Your task to perform on an android device: manage bookmarks in the chrome app Image 0: 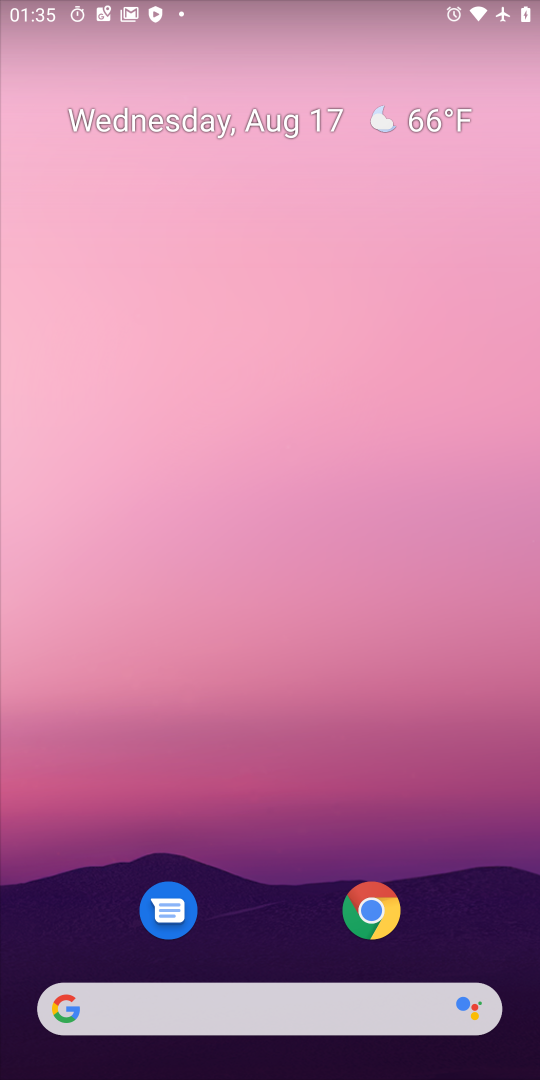
Step 0: drag from (444, 825) to (326, 167)
Your task to perform on an android device: manage bookmarks in the chrome app Image 1: 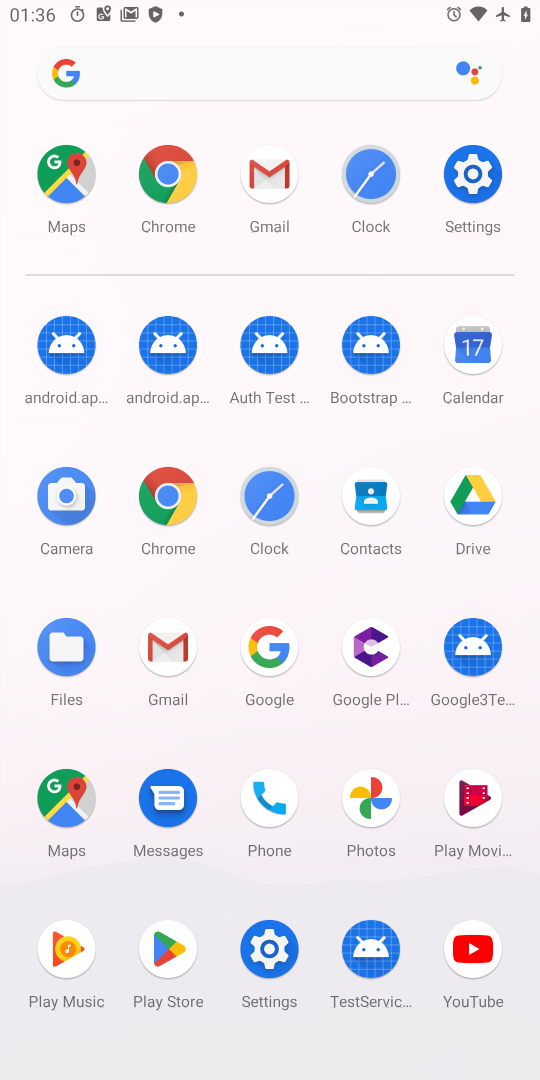
Step 1: click (169, 485)
Your task to perform on an android device: manage bookmarks in the chrome app Image 2: 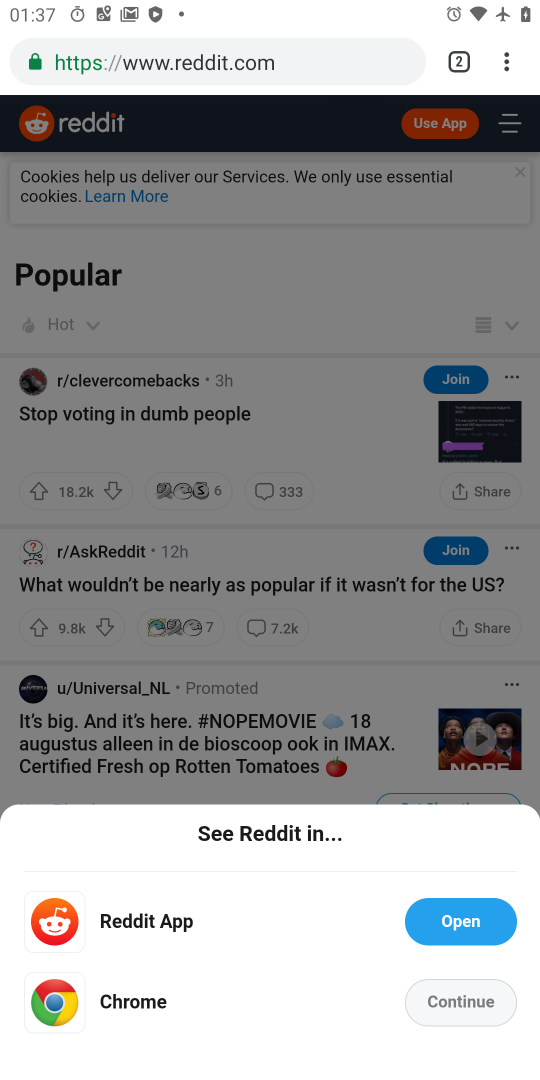
Step 2: drag from (512, 53) to (328, 326)
Your task to perform on an android device: manage bookmarks in the chrome app Image 3: 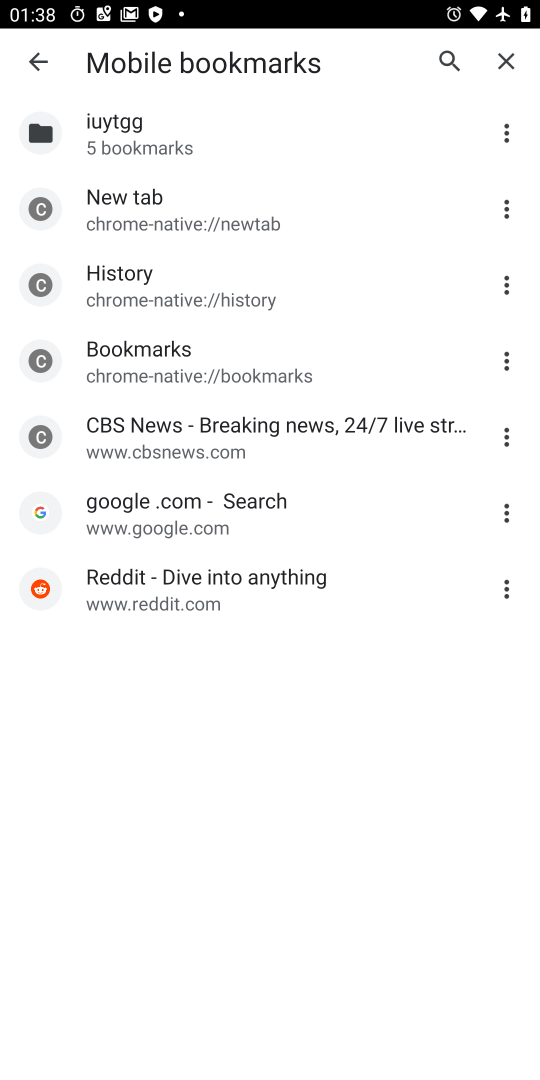
Step 3: click (504, 509)
Your task to perform on an android device: manage bookmarks in the chrome app Image 4: 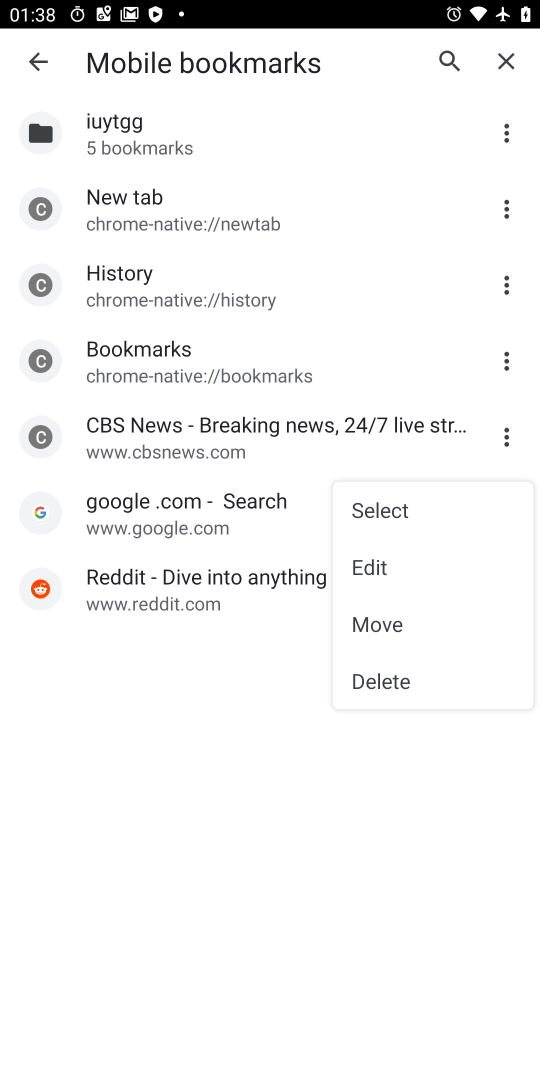
Step 4: click (382, 567)
Your task to perform on an android device: manage bookmarks in the chrome app Image 5: 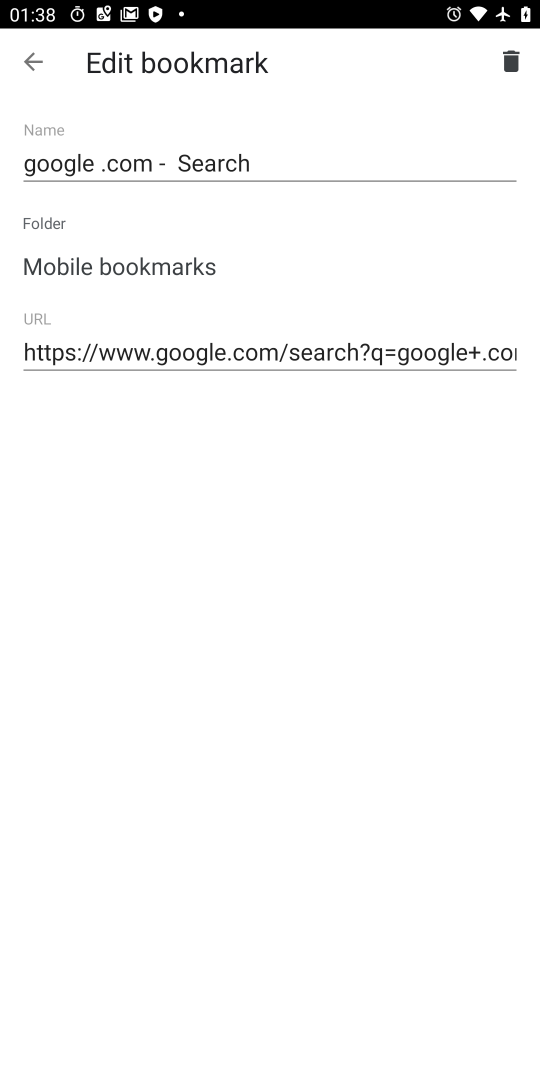
Step 5: click (218, 166)
Your task to perform on an android device: manage bookmarks in the chrome app Image 6: 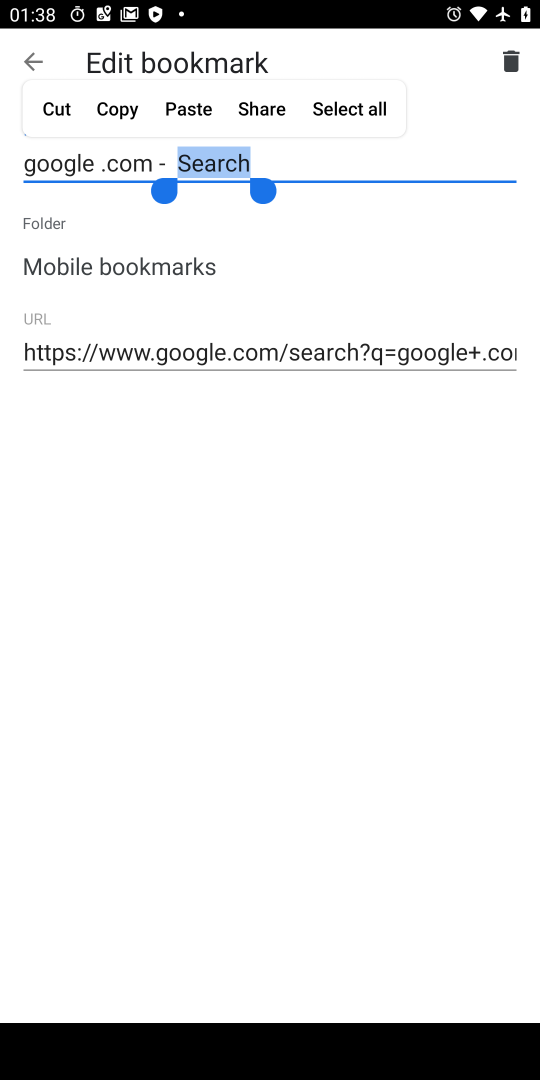
Step 6: click (59, 101)
Your task to perform on an android device: manage bookmarks in the chrome app Image 7: 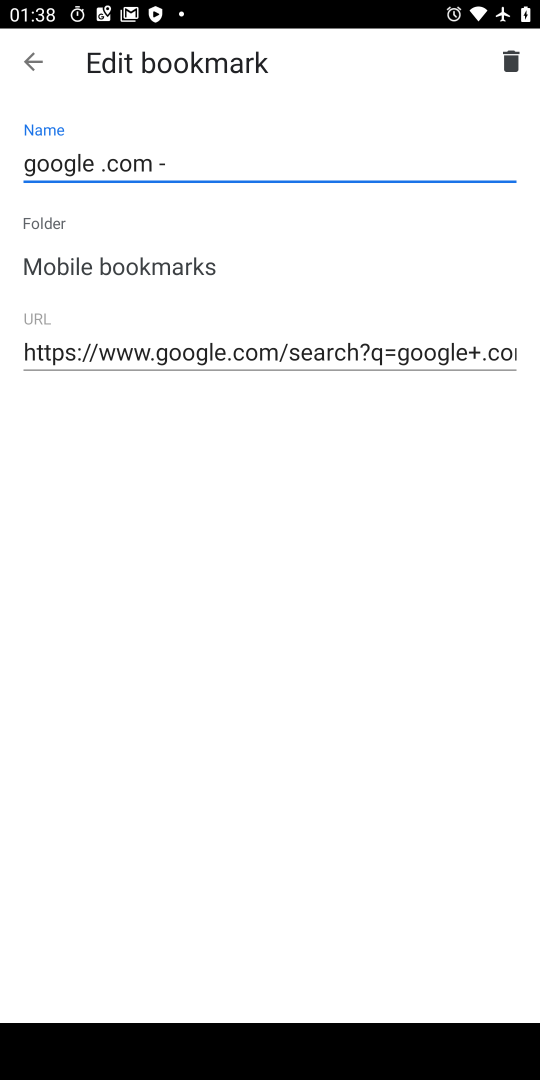
Step 7: click (30, 57)
Your task to perform on an android device: manage bookmarks in the chrome app Image 8: 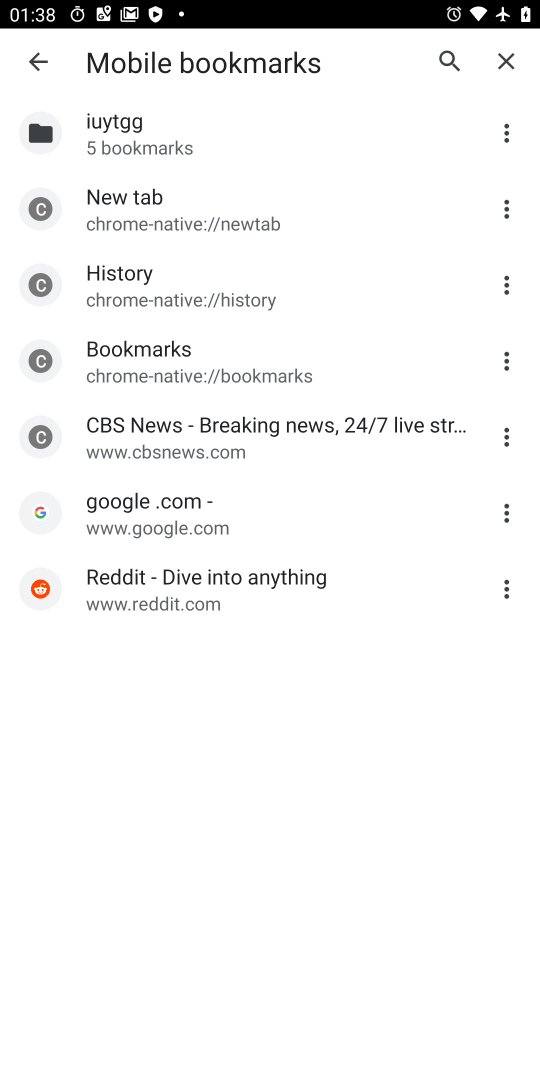
Step 8: task complete